Your task to perform on an android device: all mails in gmail Image 0: 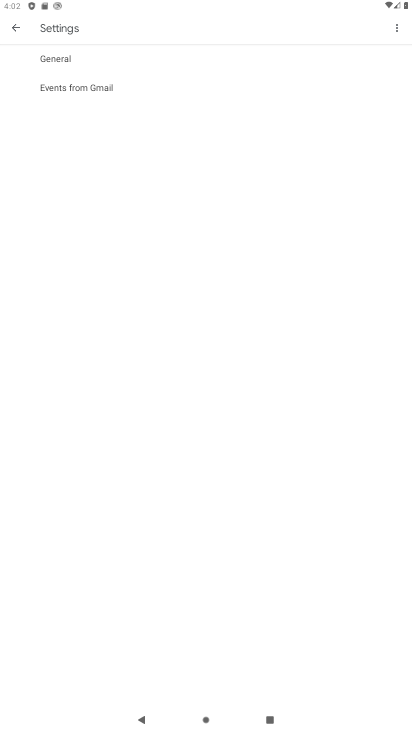
Step 0: press home button
Your task to perform on an android device: all mails in gmail Image 1: 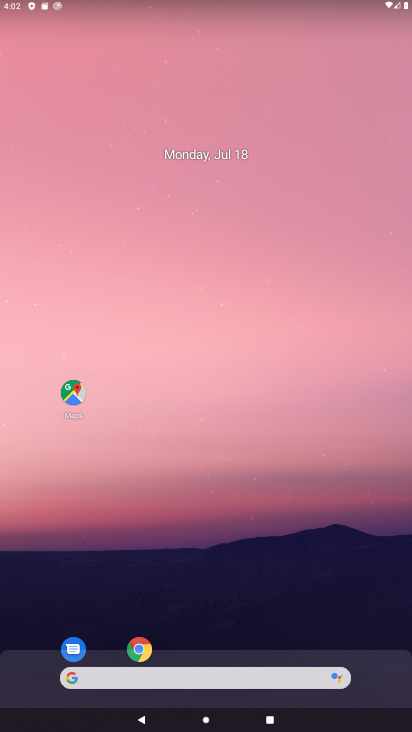
Step 1: drag from (222, 656) to (196, 320)
Your task to perform on an android device: all mails in gmail Image 2: 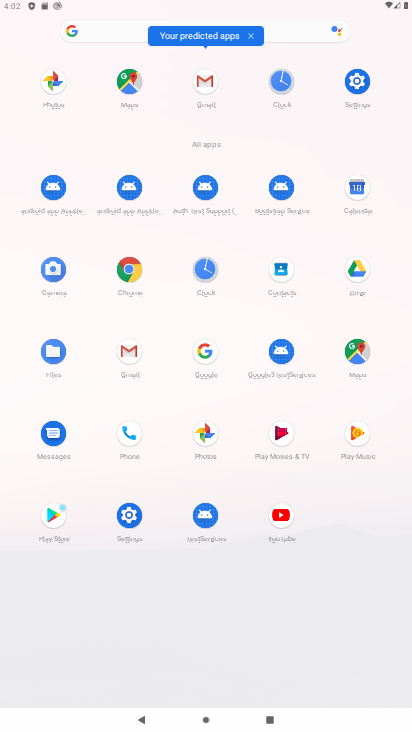
Step 2: click (188, 77)
Your task to perform on an android device: all mails in gmail Image 3: 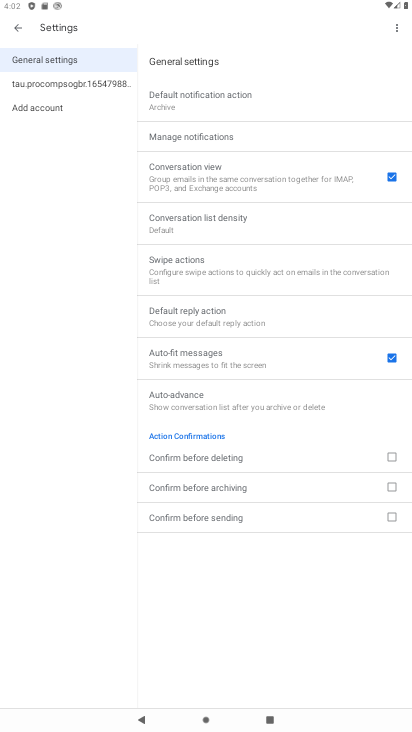
Step 3: click (14, 24)
Your task to perform on an android device: all mails in gmail Image 4: 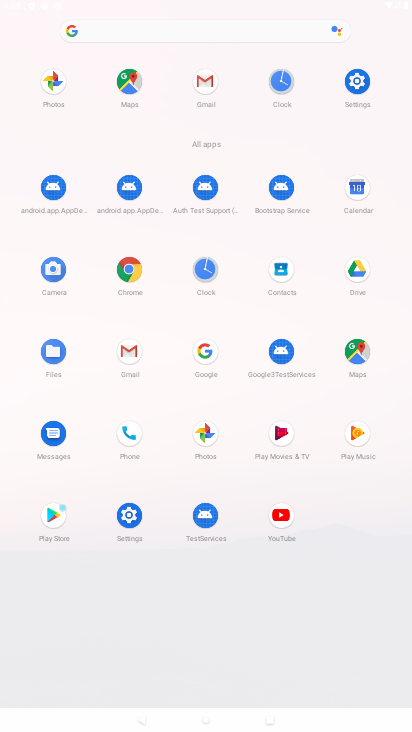
Step 4: click (216, 82)
Your task to perform on an android device: all mails in gmail Image 5: 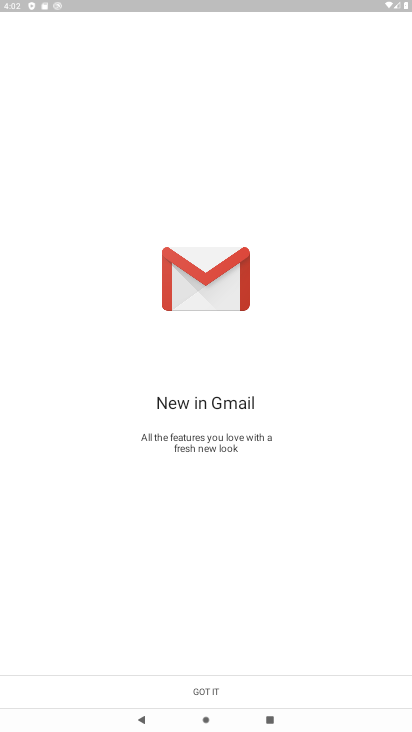
Step 5: click (196, 692)
Your task to perform on an android device: all mails in gmail Image 6: 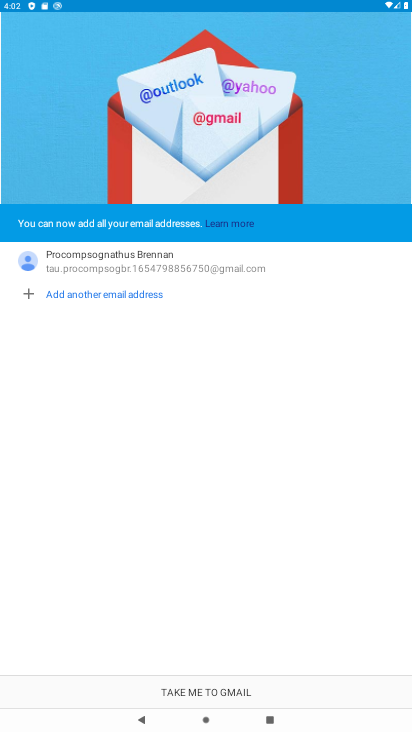
Step 6: click (196, 692)
Your task to perform on an android device: all mails in gmail Image 7: 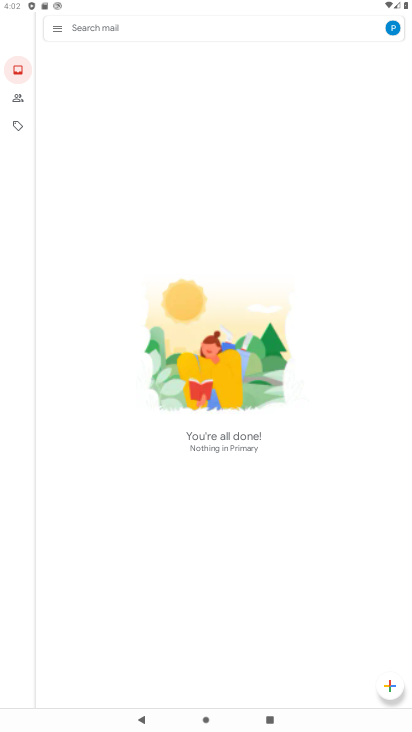
Step 7: click (55, 37)
Your task to perform on an android device: all mails in gmail Image 8: 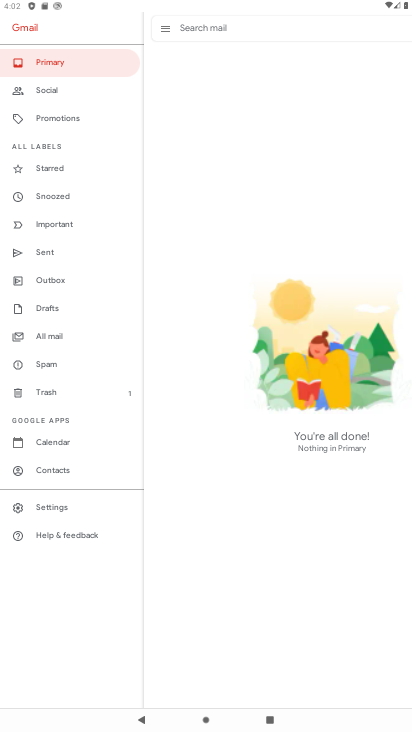
Step 8: click (62, 347)
Your task to perform on an android device: all mails in gmail Image 9: 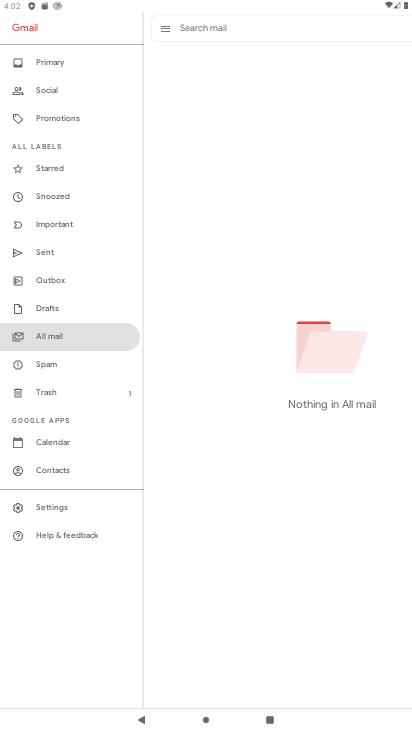
Step 9: task complete